Your task to perform on an android device: uninstall "Google Find My Device" Image 0: 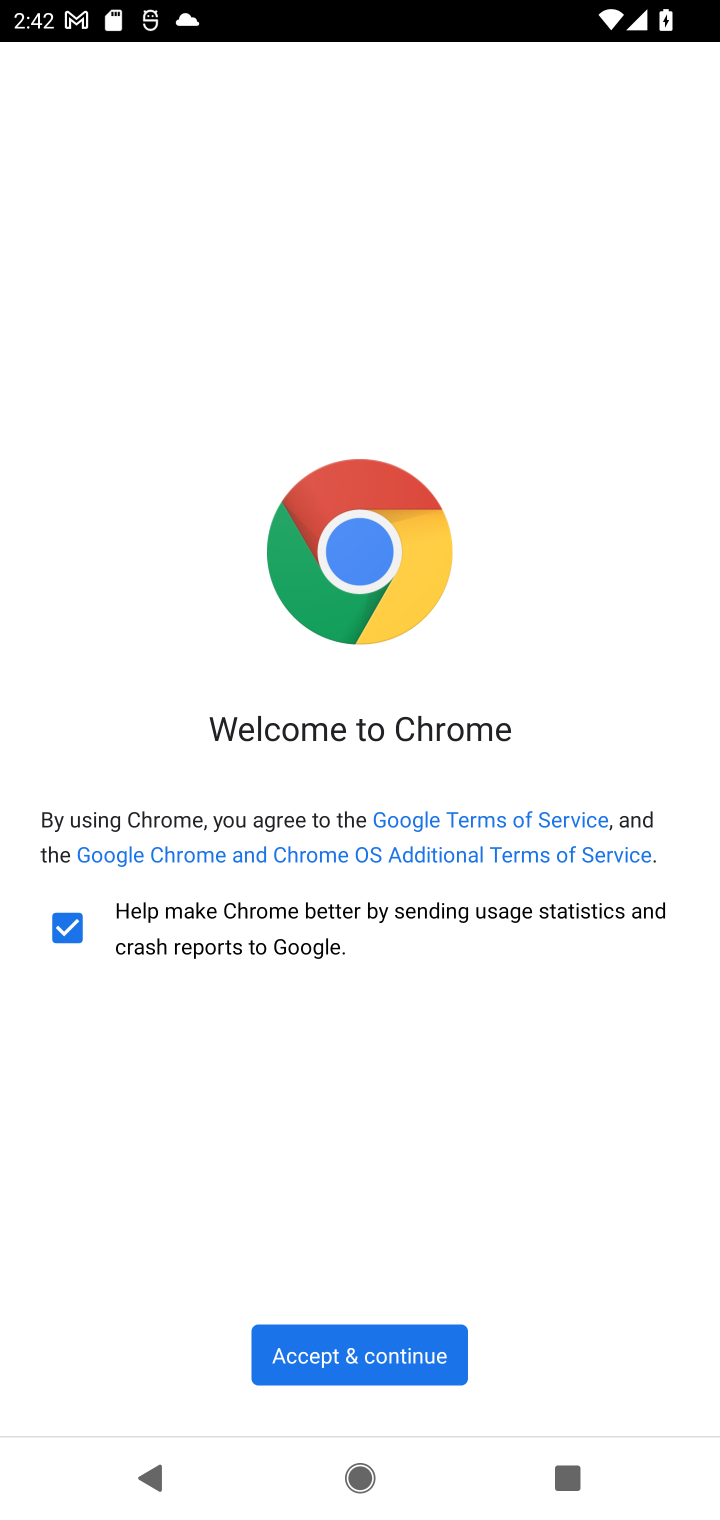
Step 0: press home button
Your task to perform on an android device: uninstall "Google Find My Device" Image 1: 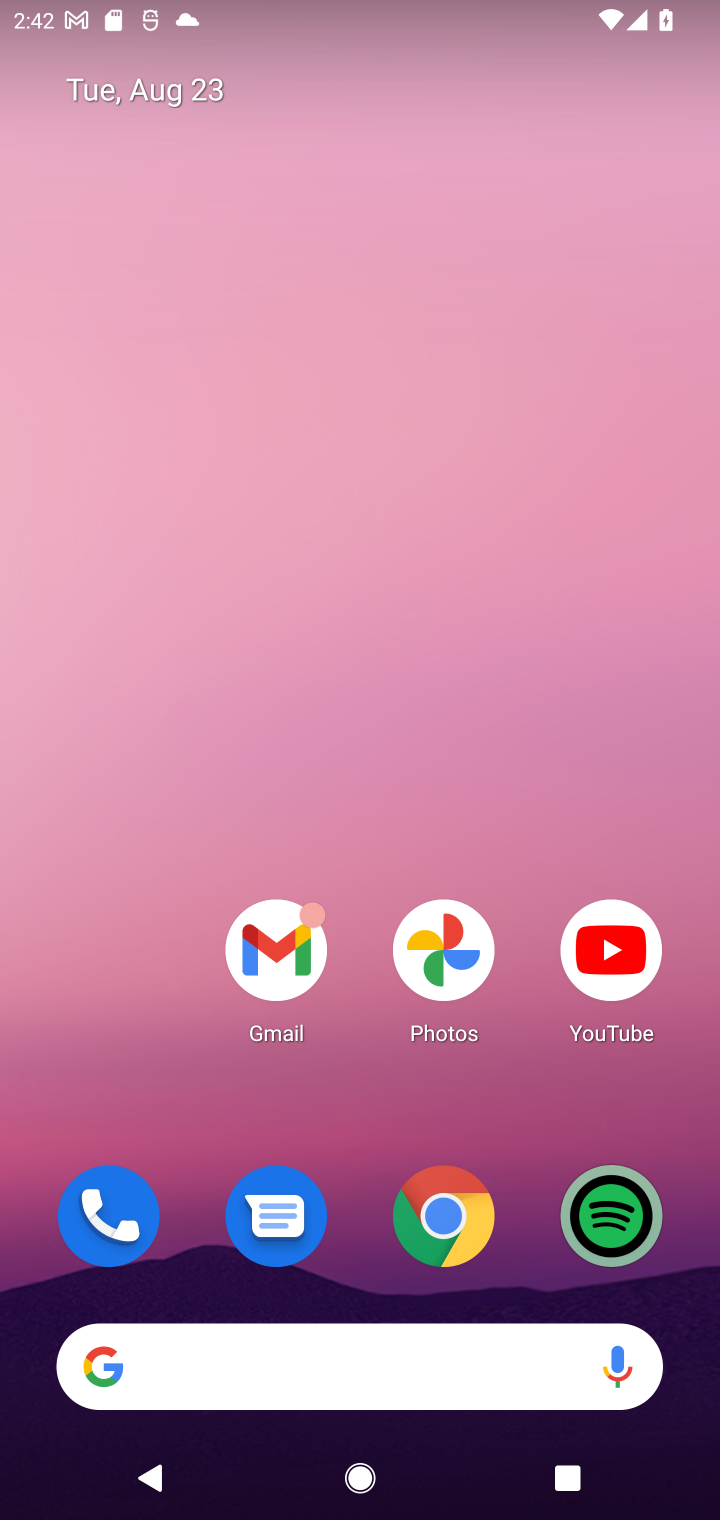
Step 1: drag from (299, 1118) to (540, 0)
Your task to perform on an android device: uninstall "Google Find My Device" Image 2: 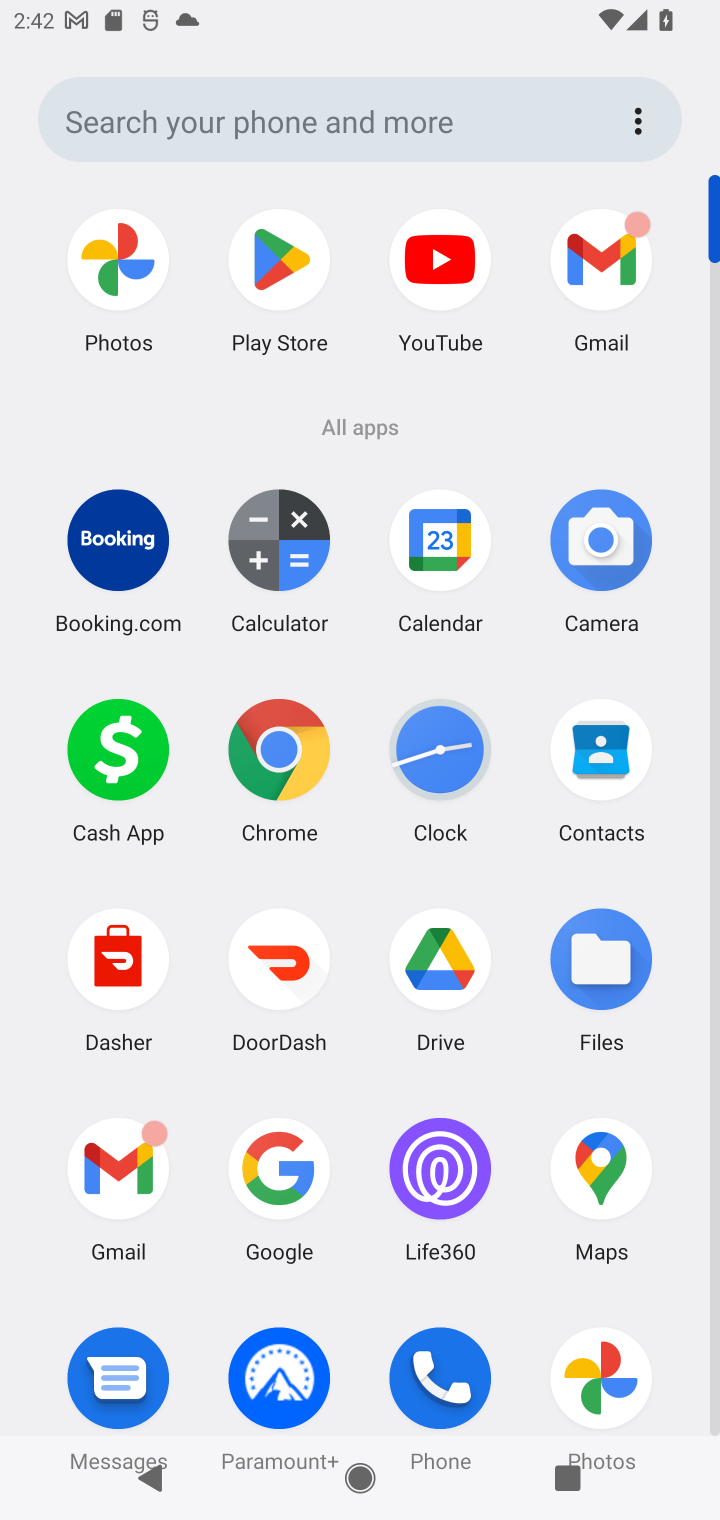
Step 2: click (265, 266)
Your task to perform on an android device: uninstall "Google Find My Device" Image 3: 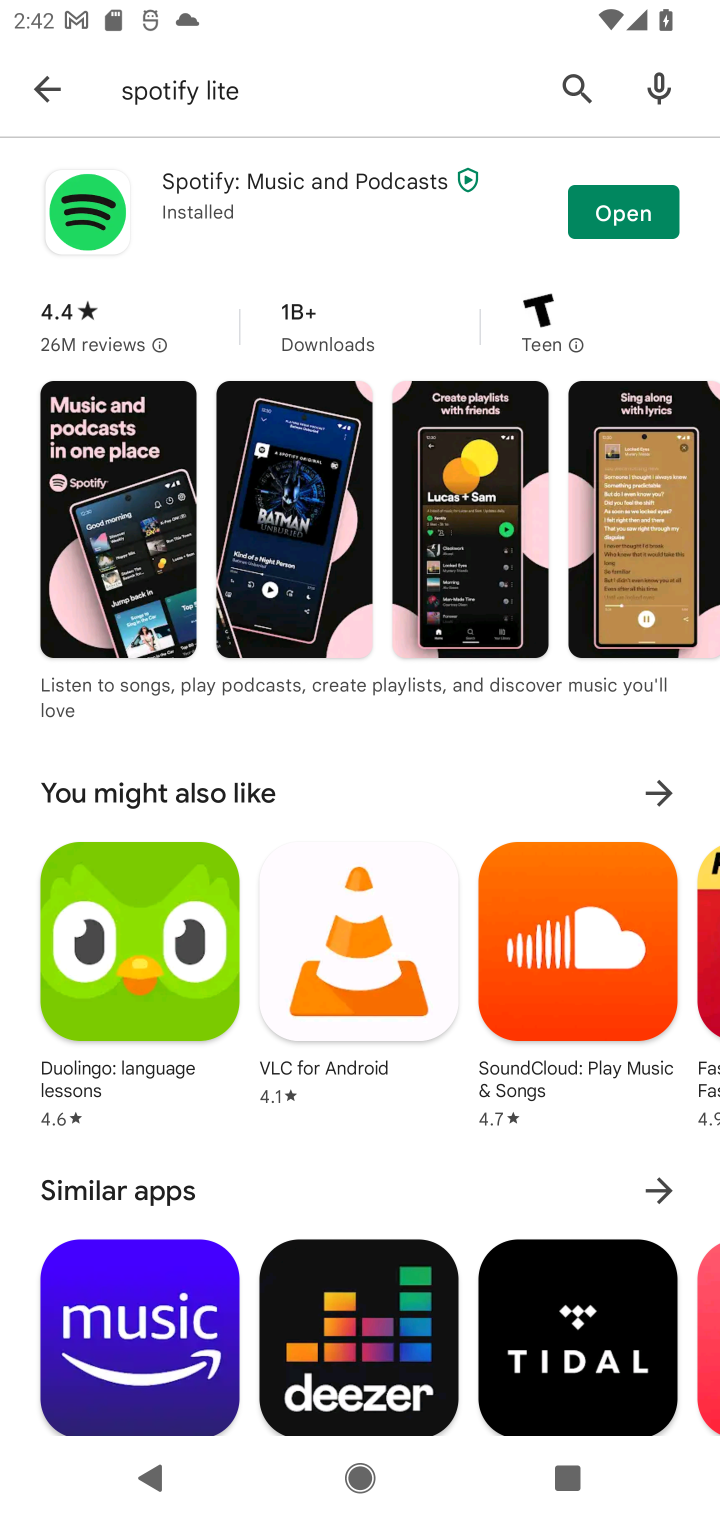
Step 3: click (13, 87)
Your task to perform on an android device: uninstall "Google Find My Device" Image 4: 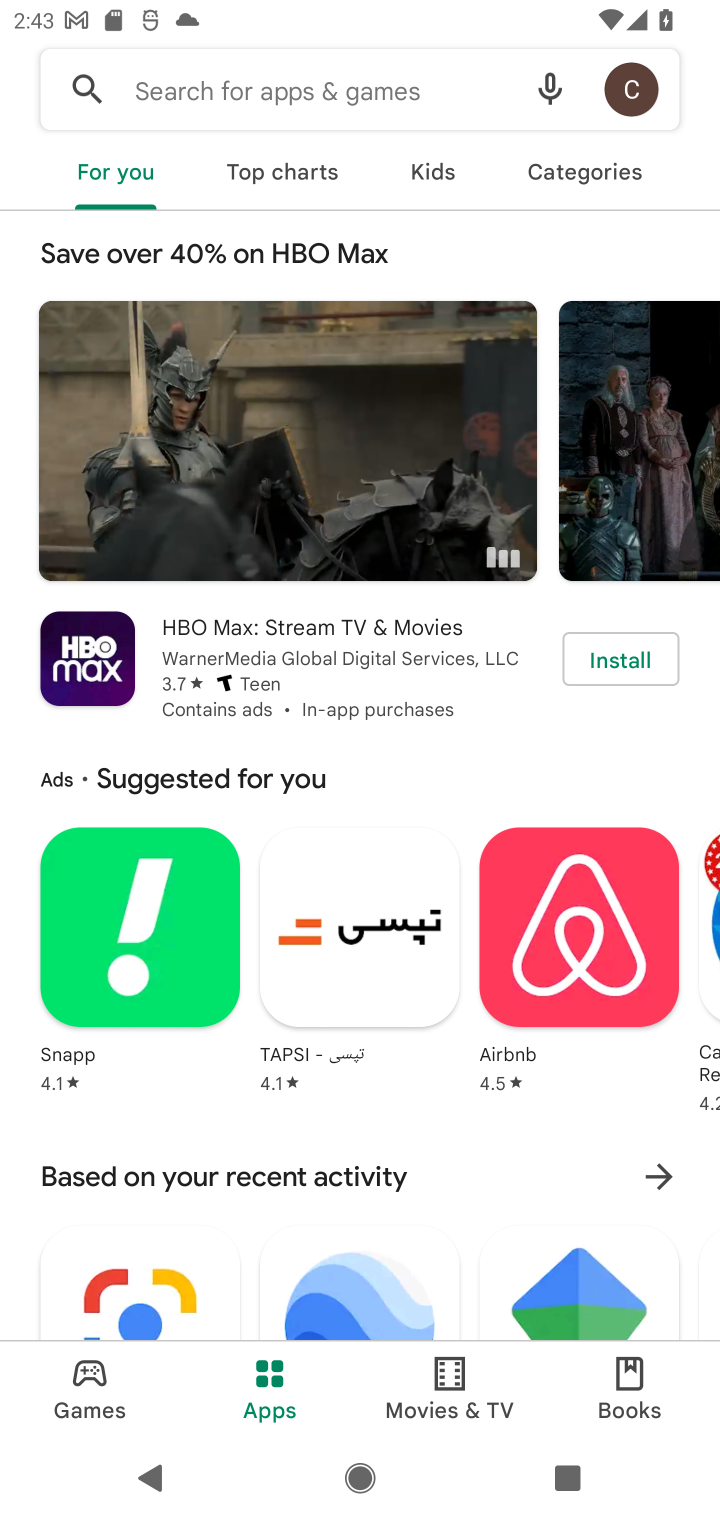
Step 4: click (347, 84)
Your task to perform on an android device: uninstall "Google Find My Device" Image 5: 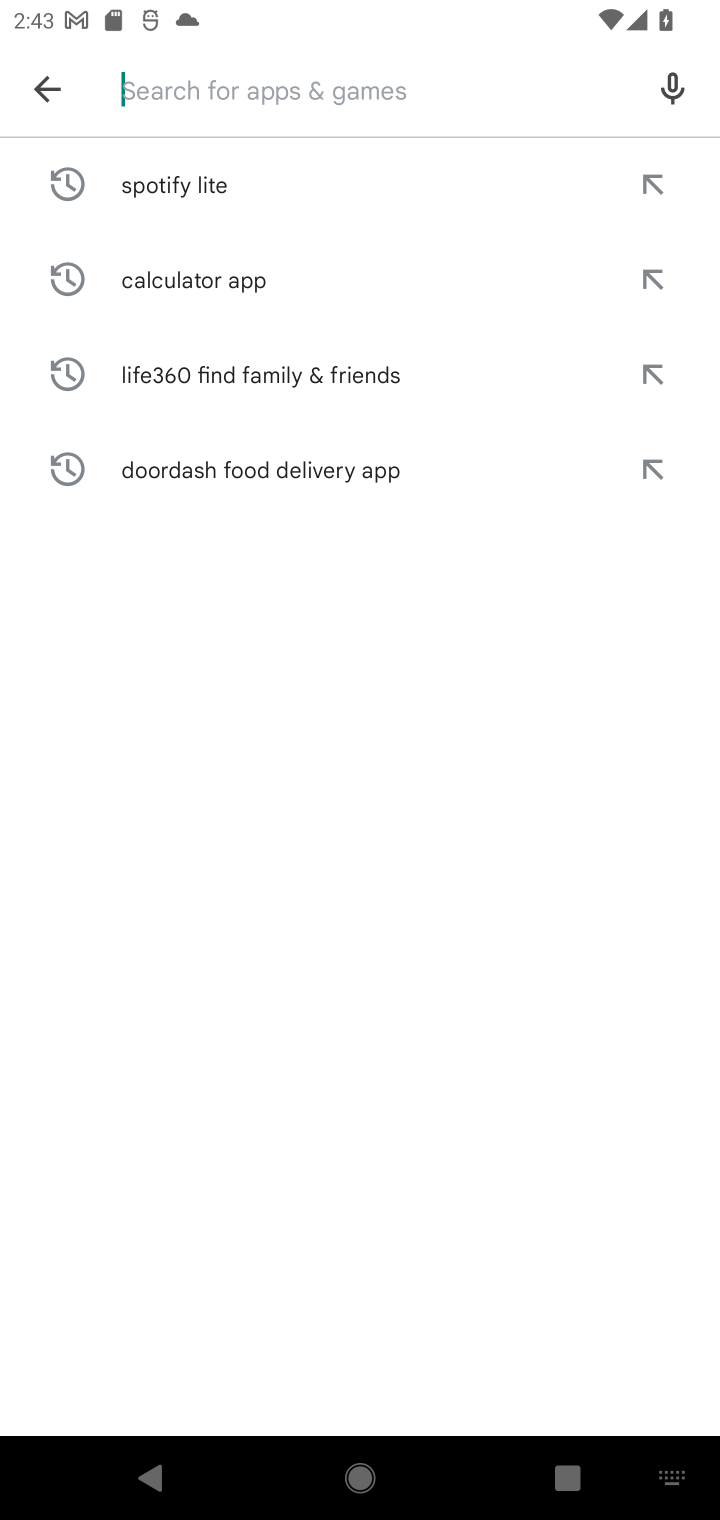
Step 5: type "Google Find My Device "
Your task to perform on an android device: uninstall "Google Find My Device" Image 6: 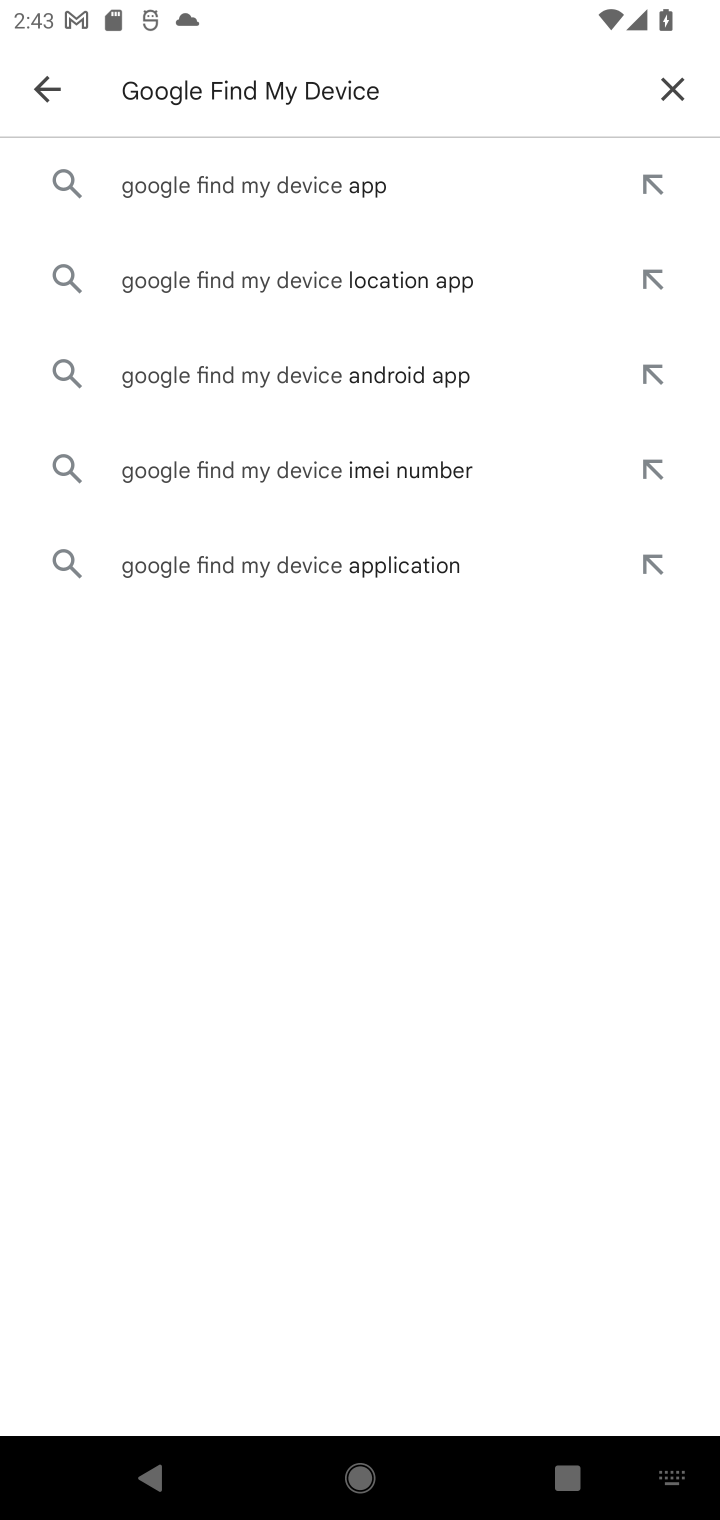
Step 6: click (281, 181)
Your task to perform on an android device: uninstall "Google Find My Device" Image 7: 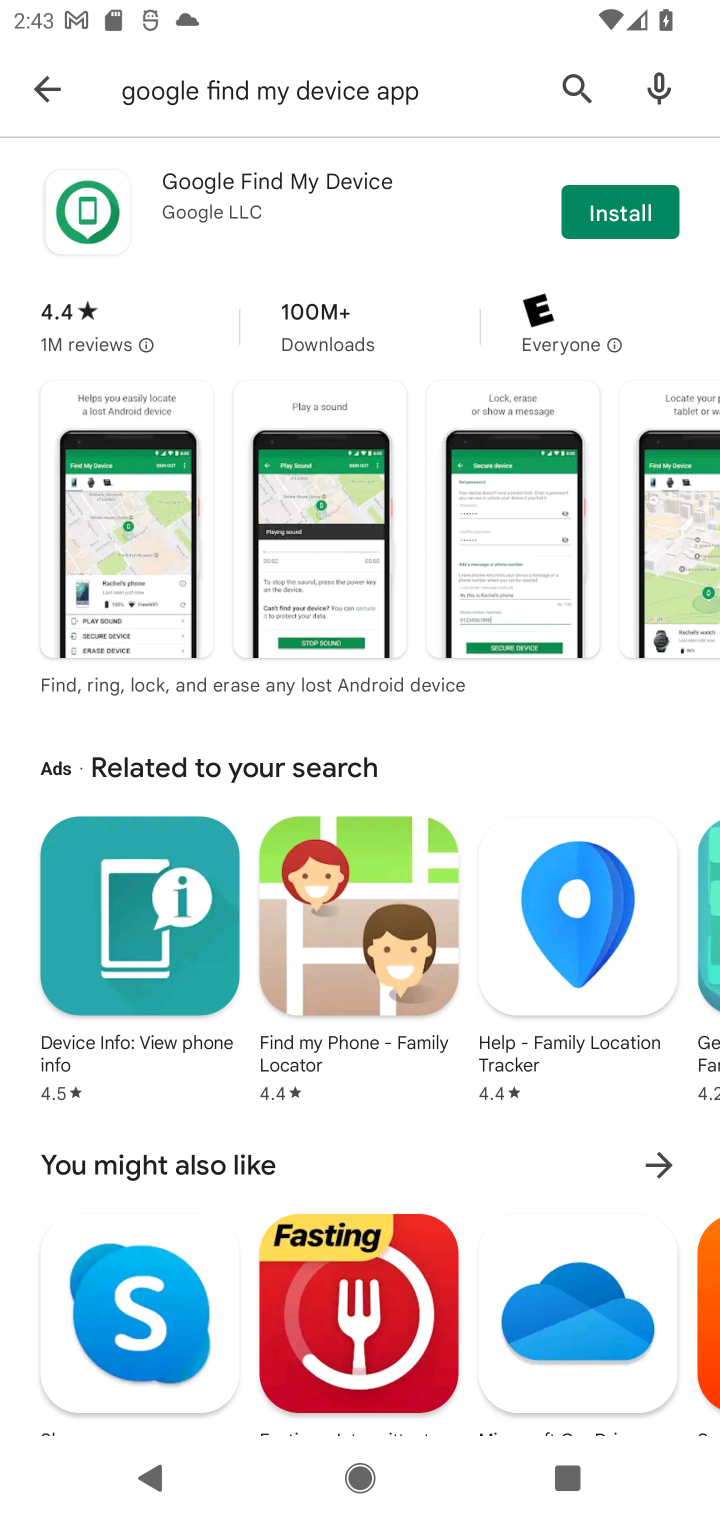
Step 7: task complete